Your task to perform on an android device: open app "Fetch Rewards" (install if not already installed) and go to login screen Image 0: 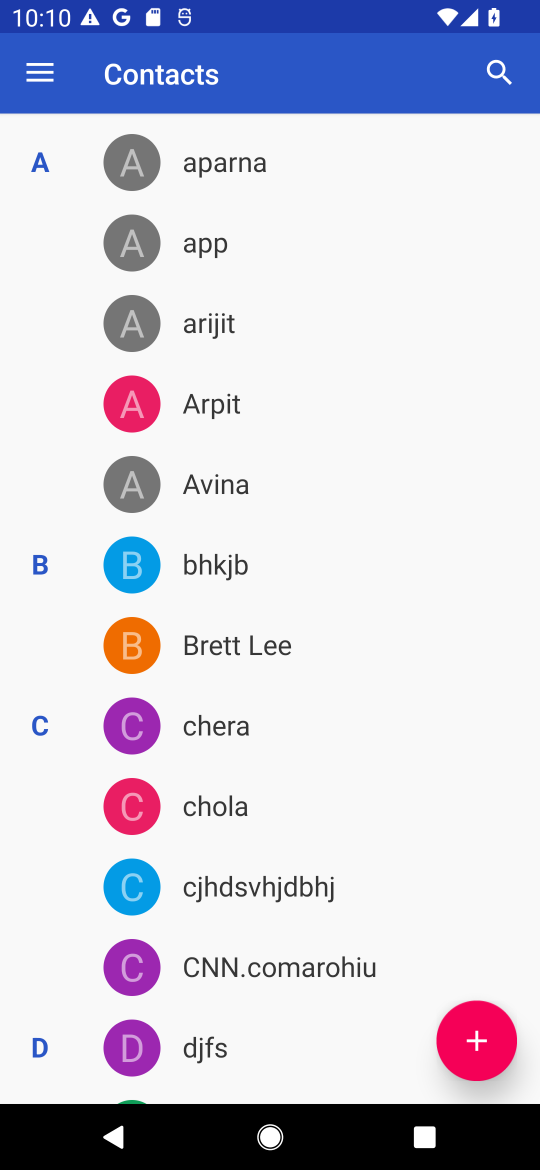
Step 0: press home button
Your task to perform on an android device: open app "Fetch Rewards" (install if not already installed) and go to login screen Image 1: 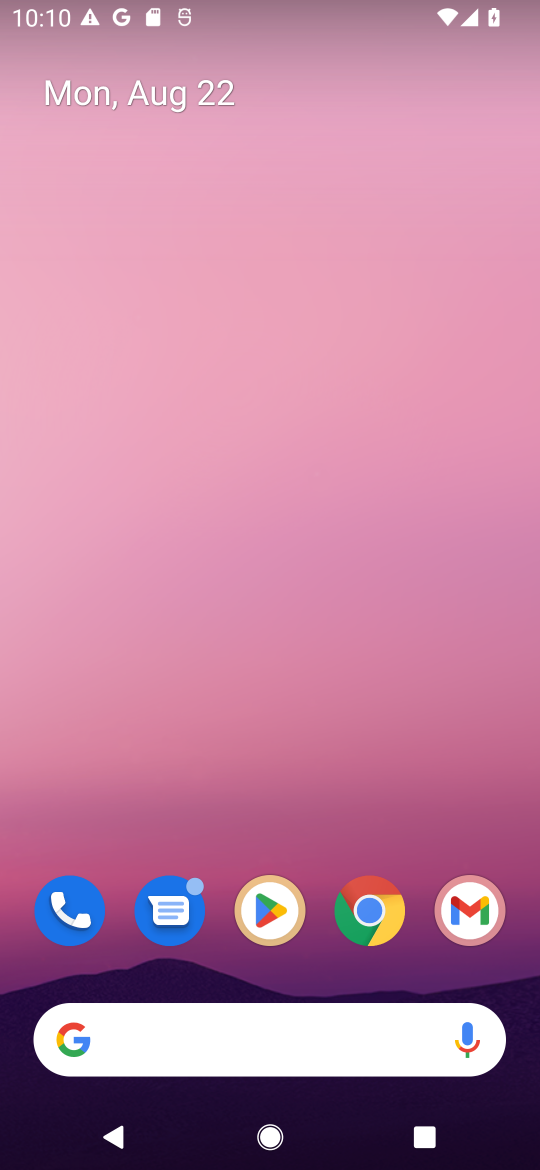
Step 1: click (266, 921)
Your task to perform on an android device: open app "Fetch Rewards" (install if not already installed) and go to login screen Image 2: 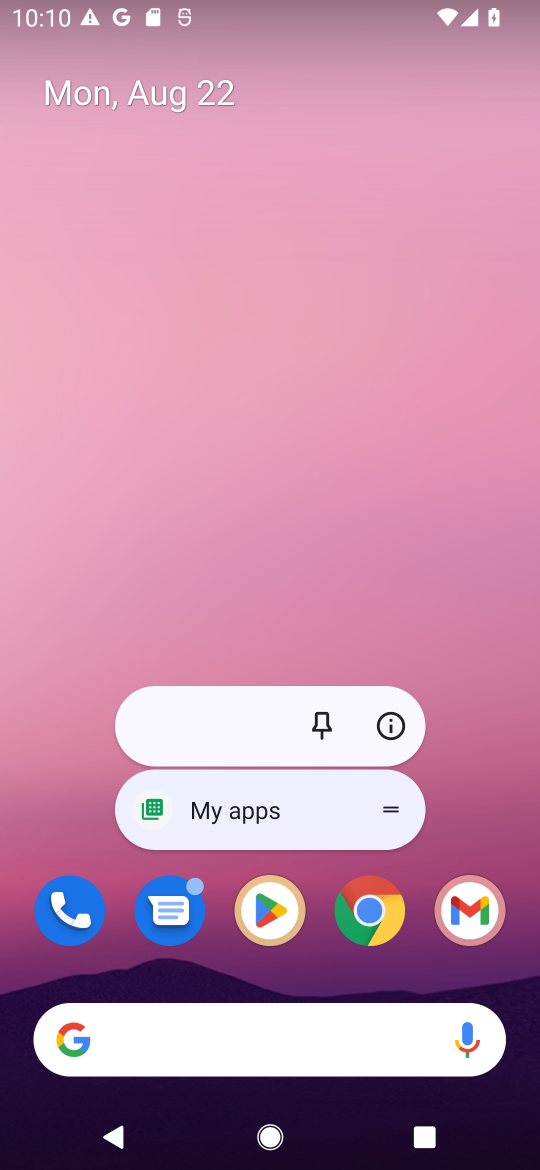
Step 2: click (279, 887)
Your task to perform on an android device: open app "Fetch Rewards" (install if not already installed) and go to login screen Image 3: 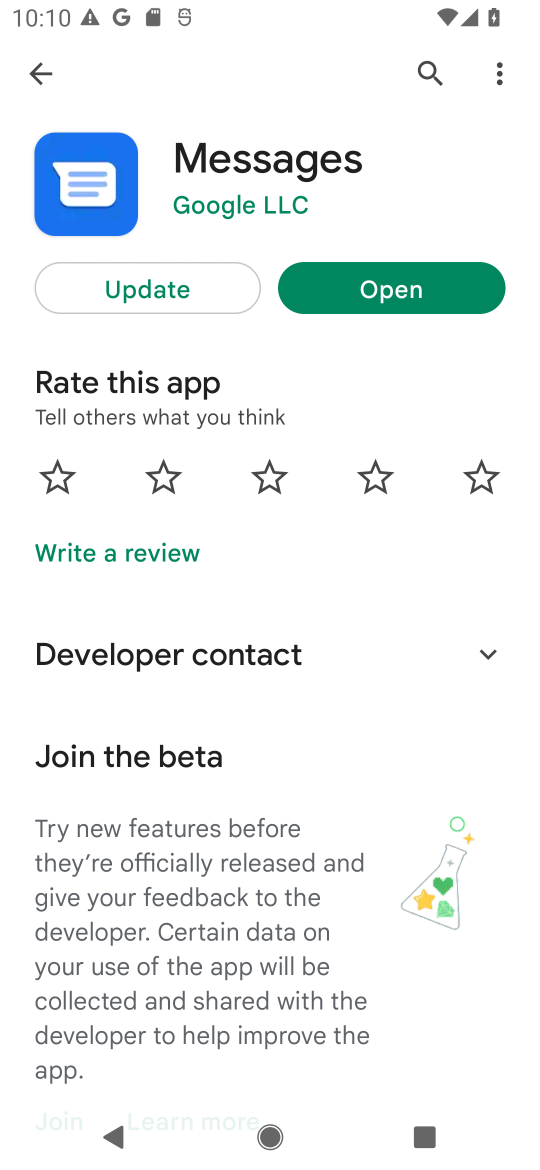
Step 3: click (430, 68)
Your task to perform on an android device: open app "Fetch Rewards" (install if not already installed) and go to login screen Image 4: 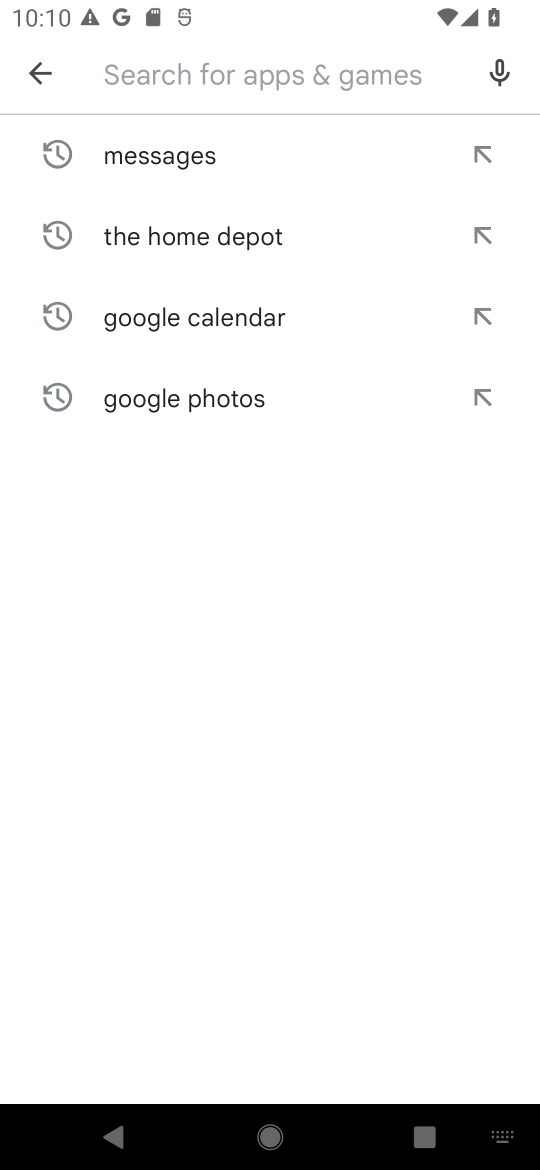
Step 4: type "Fetch Rewards"
Your task to perform on an android device: open app "Fetch Rewards" (install if not already installed) and go to login screen Image 5: 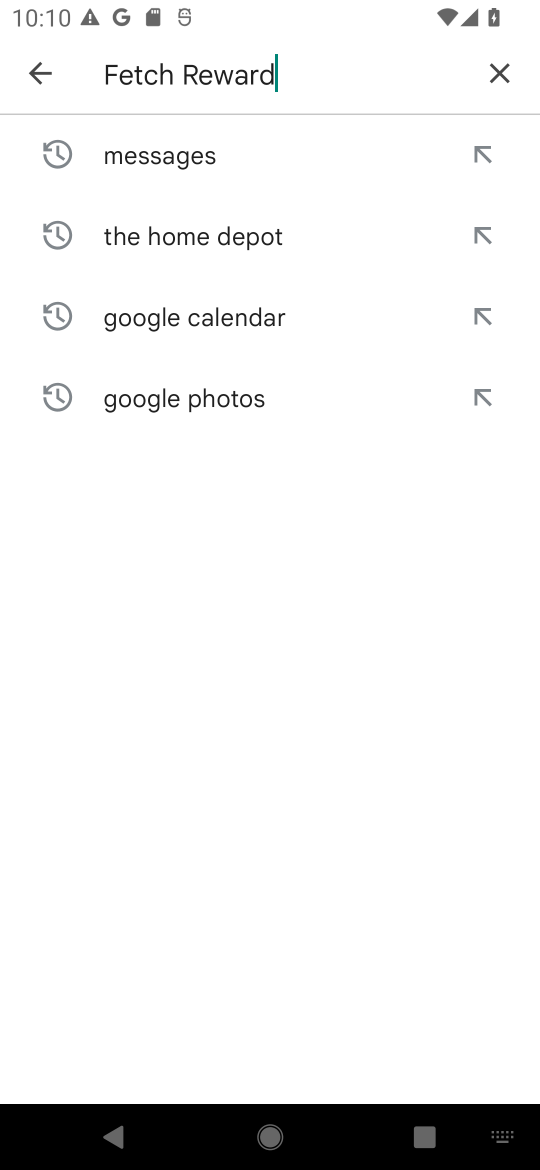
Step 5: type ""
Your task to perform on an android device: open app "Fetch Rewards" (install if not already installed) and go to login screen Image 6: 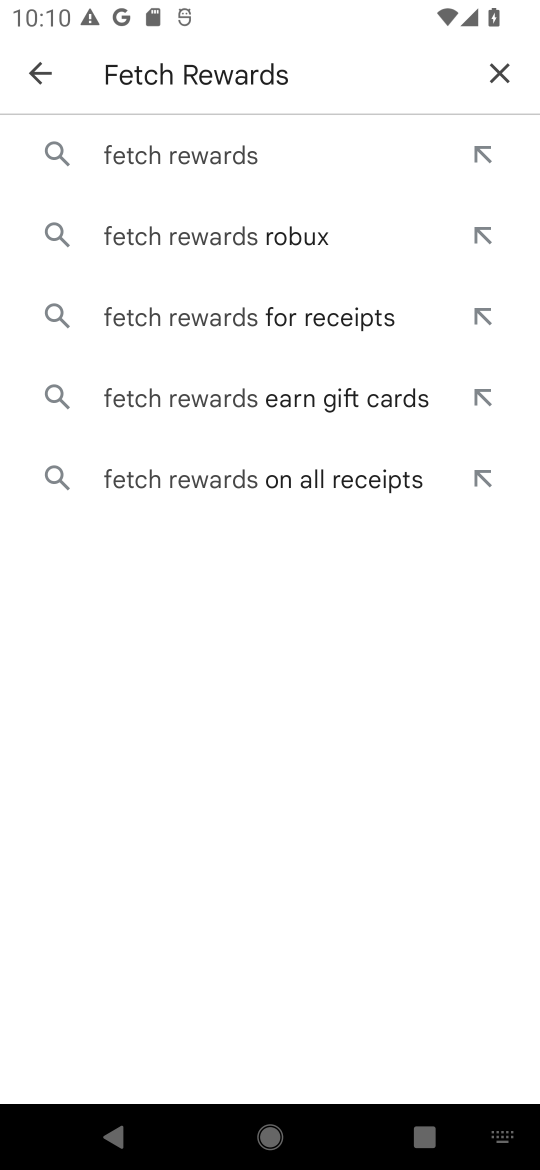
Step 6: click (236, 153)
Your task to perform on an android device: open app "Fetch Rewards" (install if not already installed) and go to login screen Image 7: 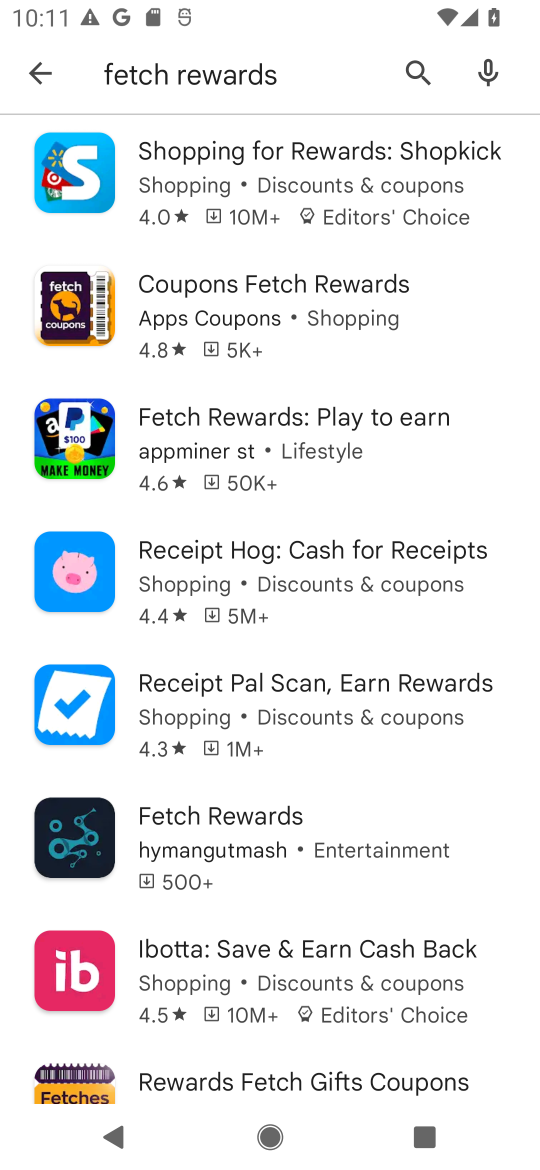
Step 7: task complete